Your task to perform on an android device: Open settings Image 0: 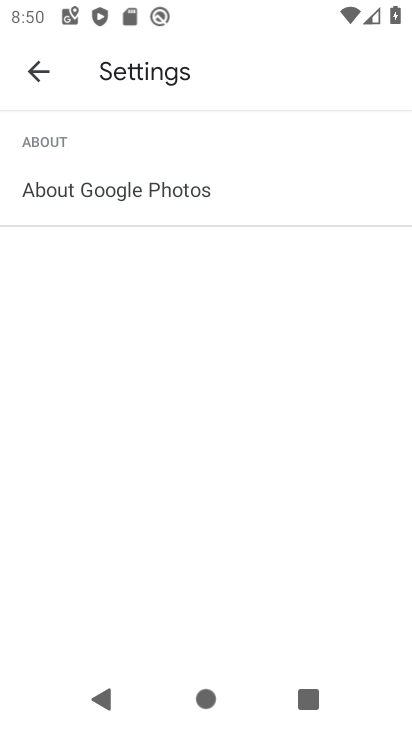
Step 0: press home button
Your task to perform on an android device: Open settings Image 1: 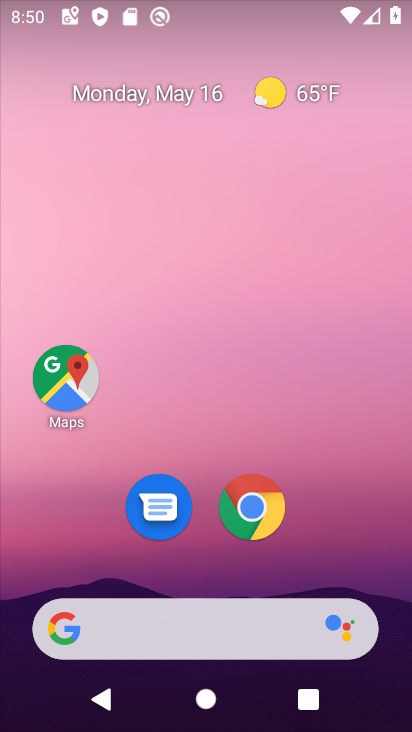
Step 1: drag from (221, 579) to (237, 5)
Your task to perform on an android device: Open settings Image 2: 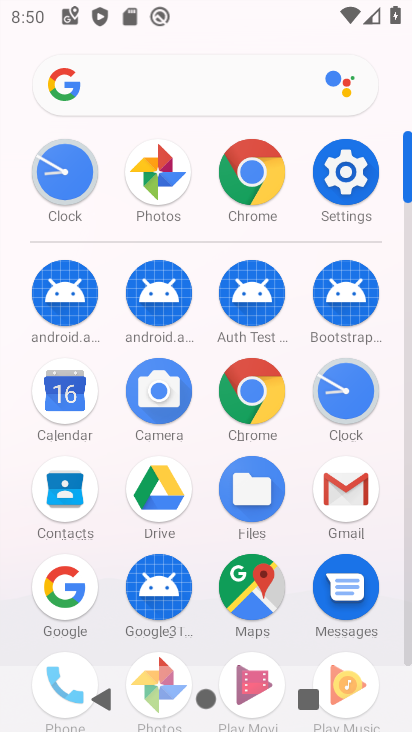
Step 2: click (360, 176)
Your task to perform on an android device: Open settings Image 3: 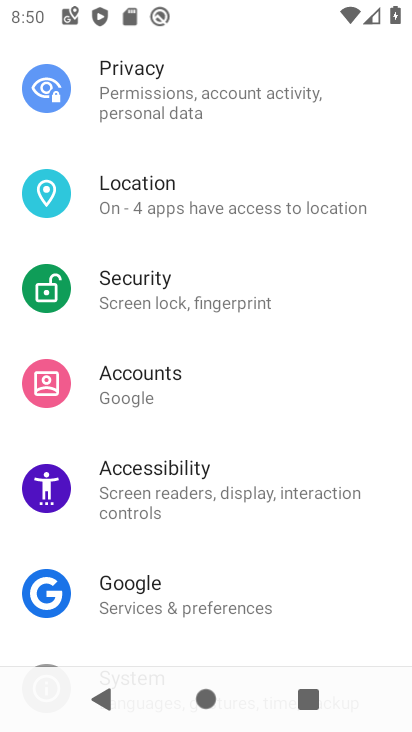
Step 3: task complete